Your task to perform on an android device: Open Google Chrome and click the shortcut for Amazon.com Image 0: 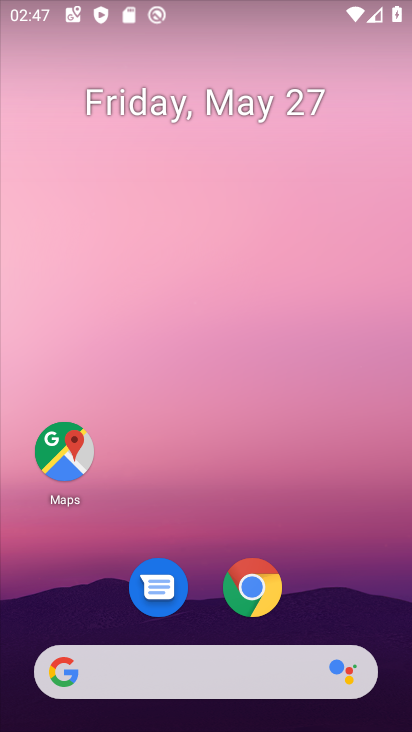
Step 0: press home button
Your task to perform on an android device: Open Google Chrome and click the shortcut for Amazon.com Image 1: 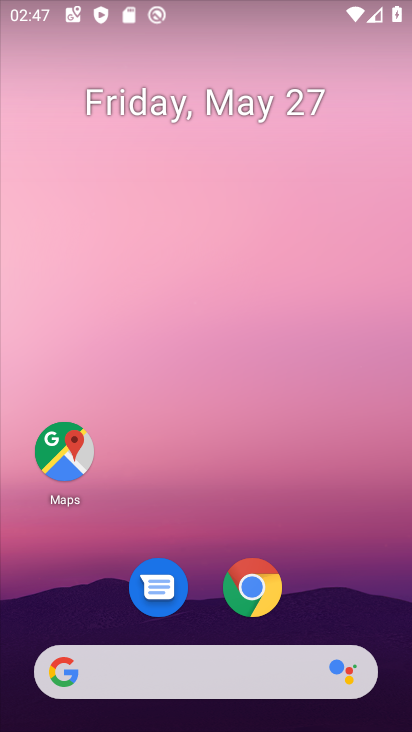
Step 1: click (249, 595)
Your task to perform on an android device: Open Google Chrome and click the shortcut for Amazon.com Image 2: 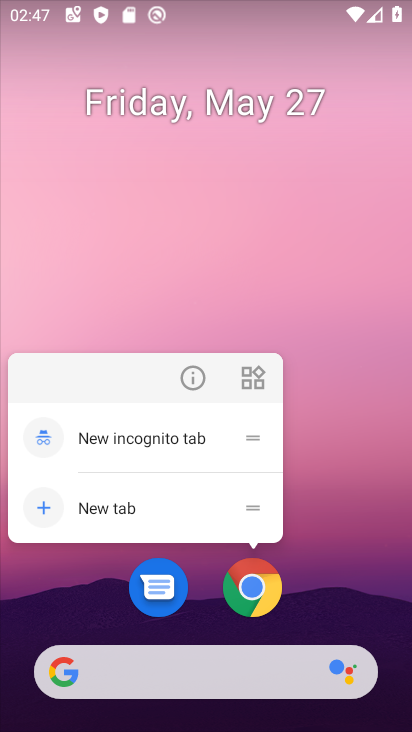
Step 2: click (324, 586)
Your task to perform on an android device: Open Google Chrome and click the shortcut for Amazon.com Image 3: 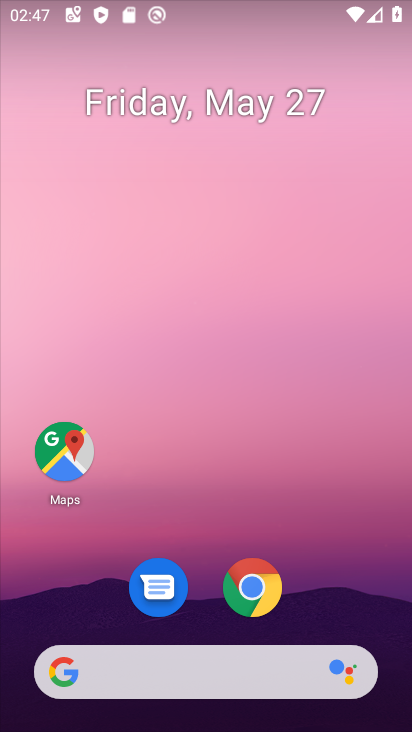
Step 3: drag from (331, 625) to (367, 130)
Your task to perform on an android device: Open Google Chrome and click the shortcut for Amazon.com Image 4: 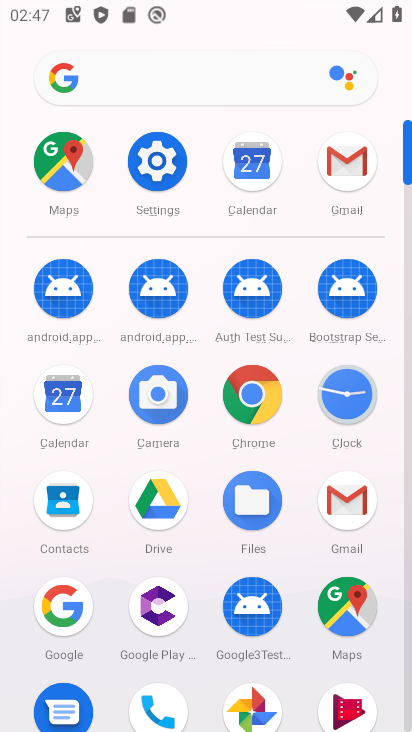
Step 4: click (259, 392)
Your task to perform on an android device: Open Google Chrome and click the shortcut for Amazon.com Image 5: 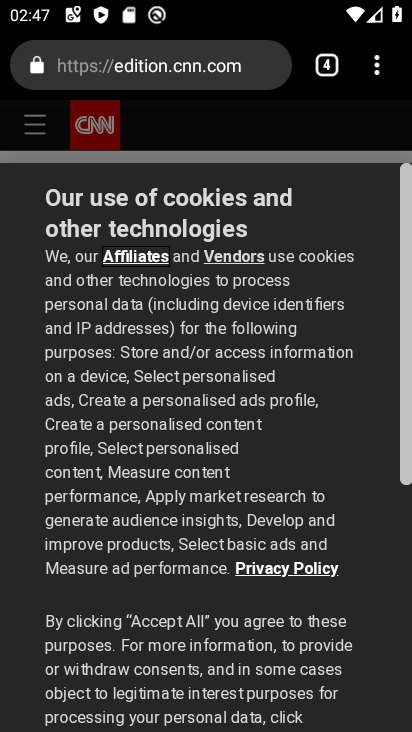
Step 5: click (327, 69)
Your task to perform on an android device: Open Google Chrome and click the shortcut for Amazon.com Image 6: 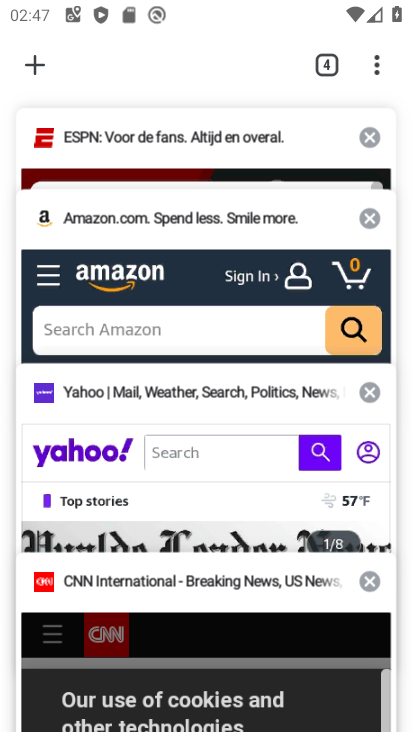
Step 6: click (31, 67)
Your task to perform on an android device: Open Google Chrome and click the shortcut for Amazon.com Image 7: 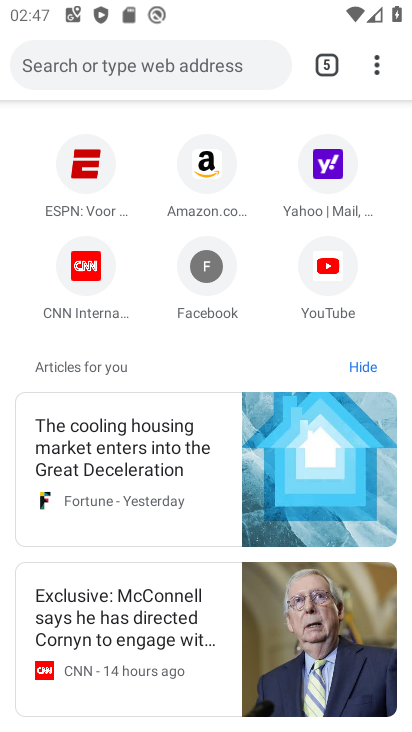
Step 7: click (206, 158)
Your task to perform on an android device: Open Google Chrome and click the shortcut for Amazon.com Image 8: 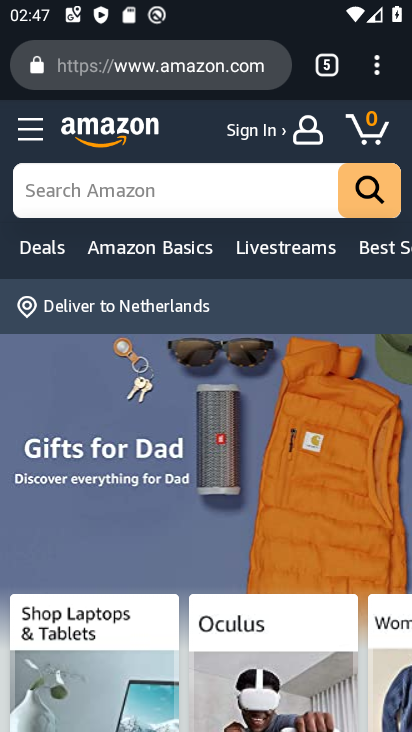
Step 8: task complete